Your task to perform on an android device: Open display settings Image 0: 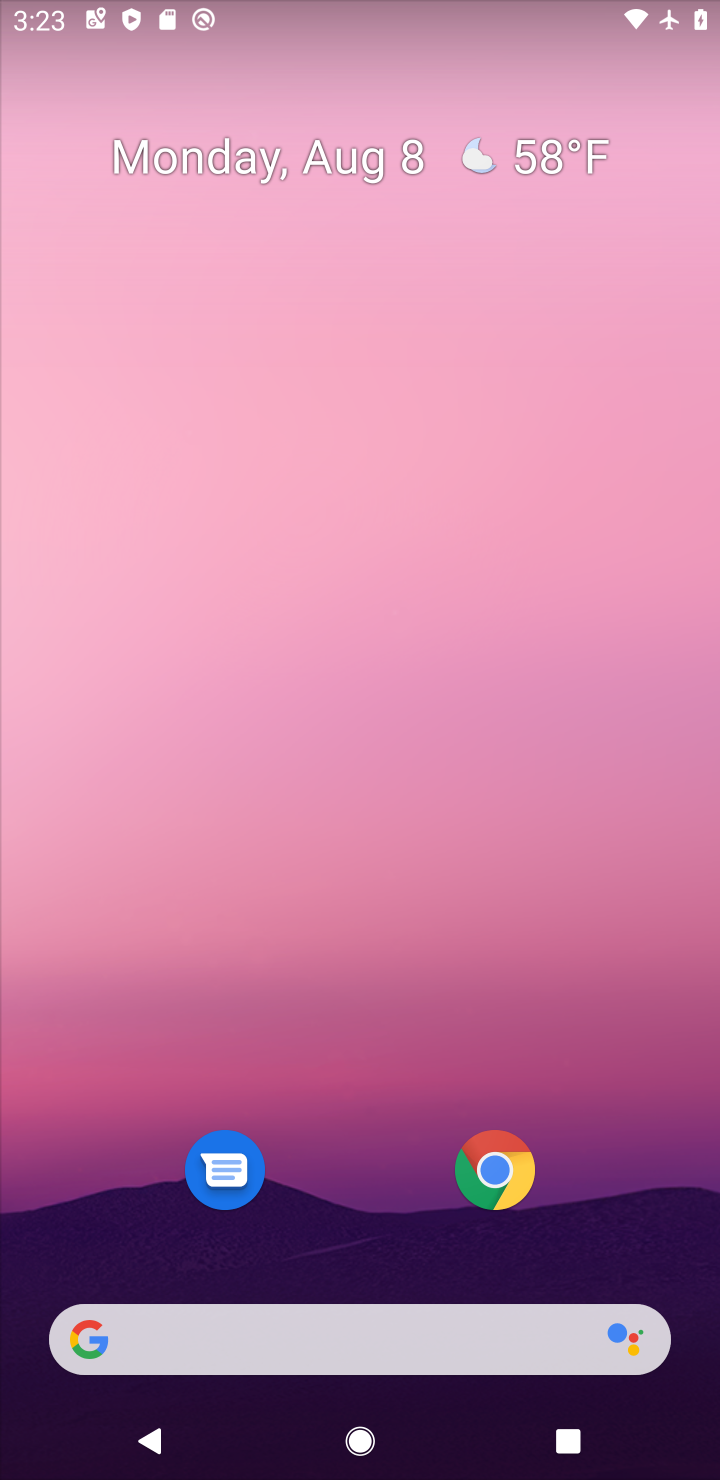
Step 0: drag from (330, 801) to (369, 550)
Your task to perform on an android device: Open display settings Image 1: 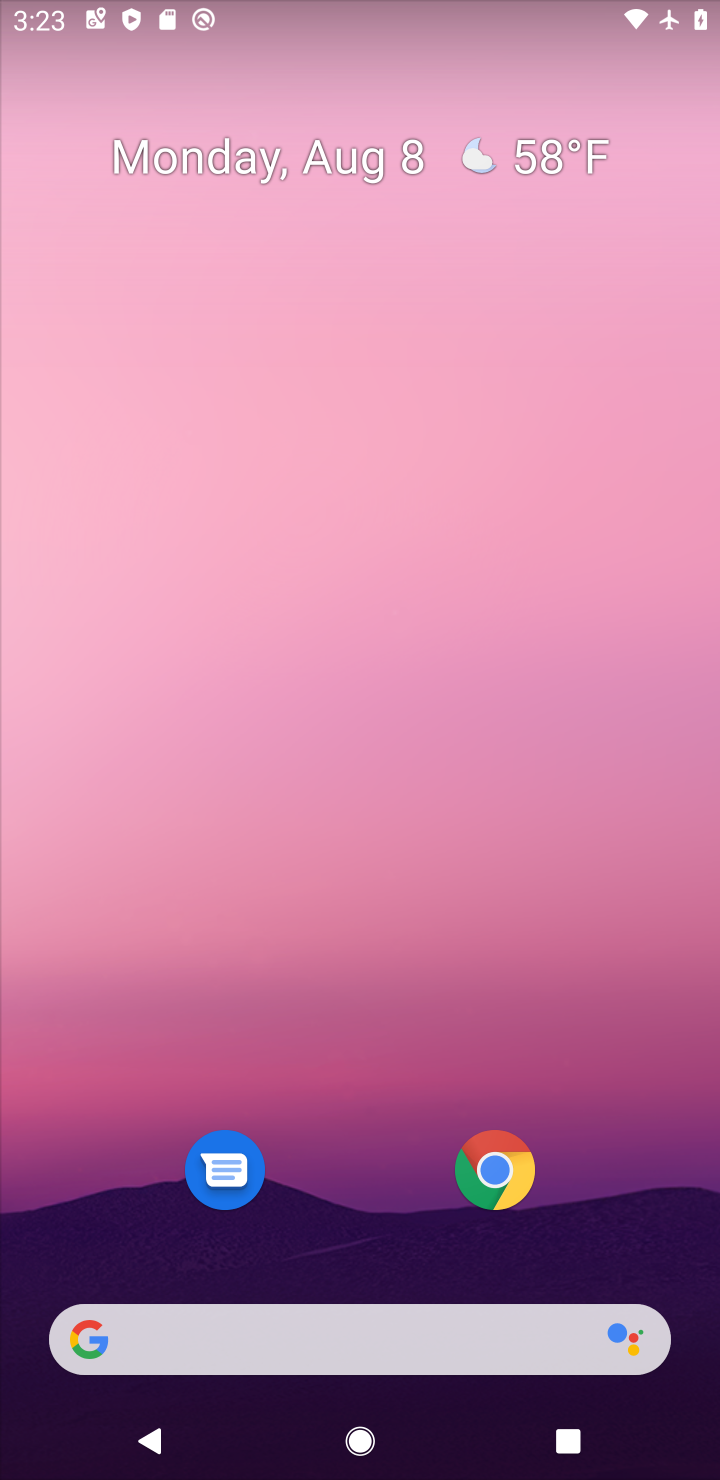
Step 1: drag from (421, 829) to (438, 483)
Your task to perform on an android device: Open display settings Image 2: 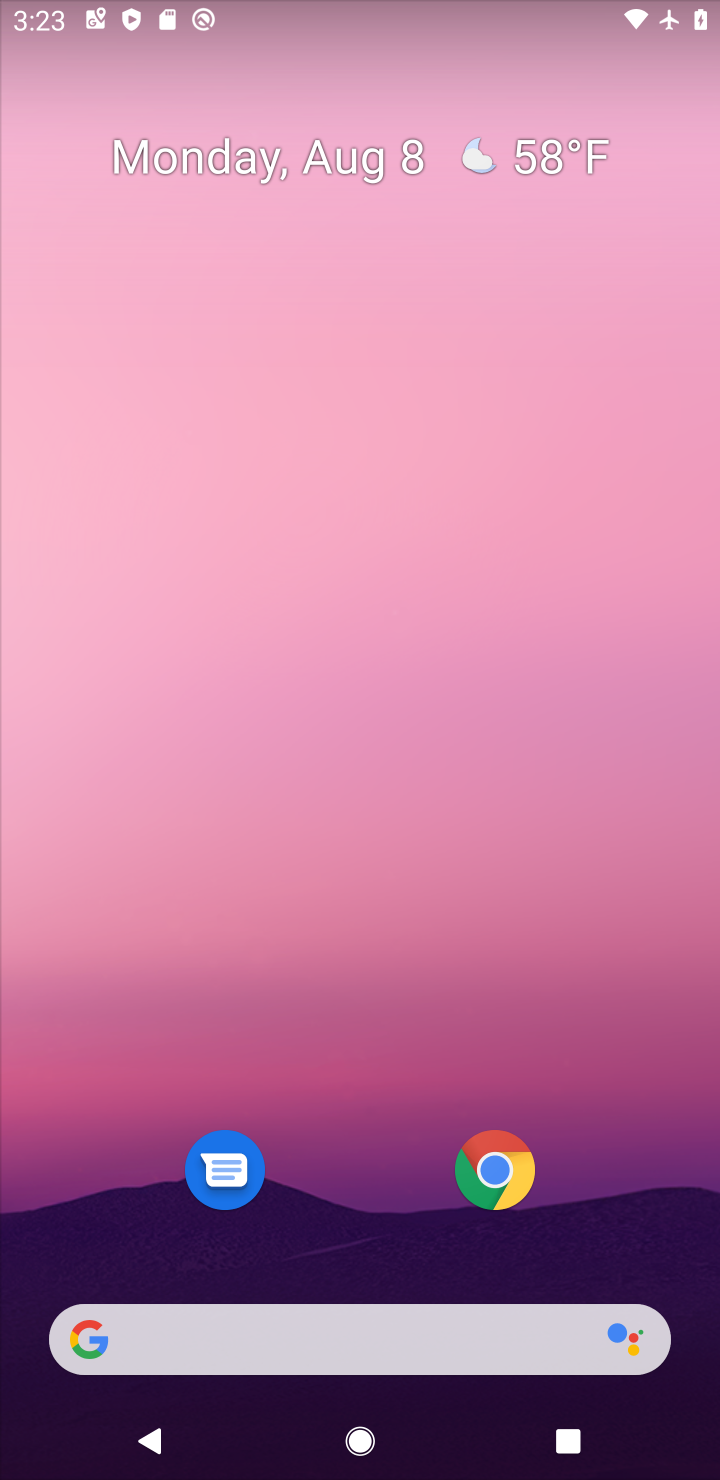
Step 2: drag from (343, 1039) to (343, 362)
Your task to perform on an android device: Open display settings Image 3: 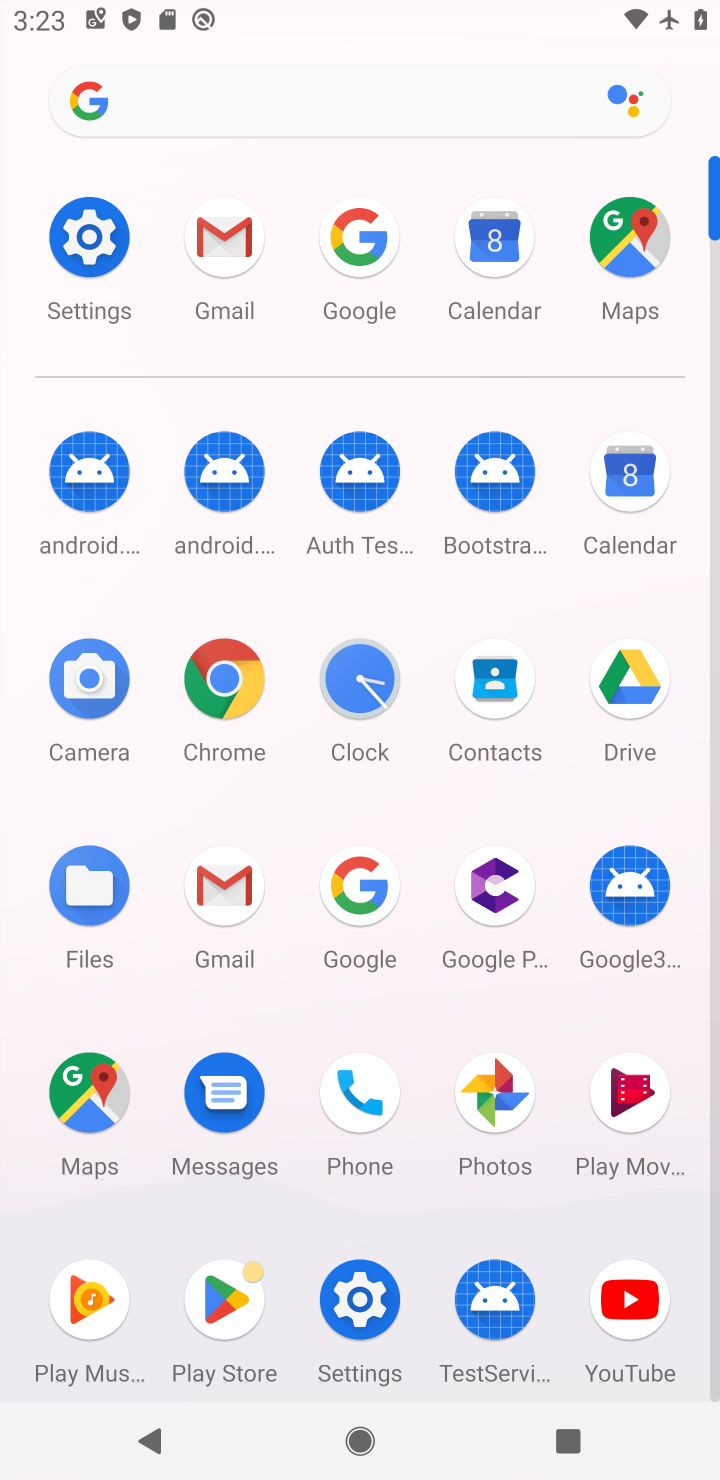
Step 3: click (76, 250)
Your task to perform on an android device: Open display settings Image 4: 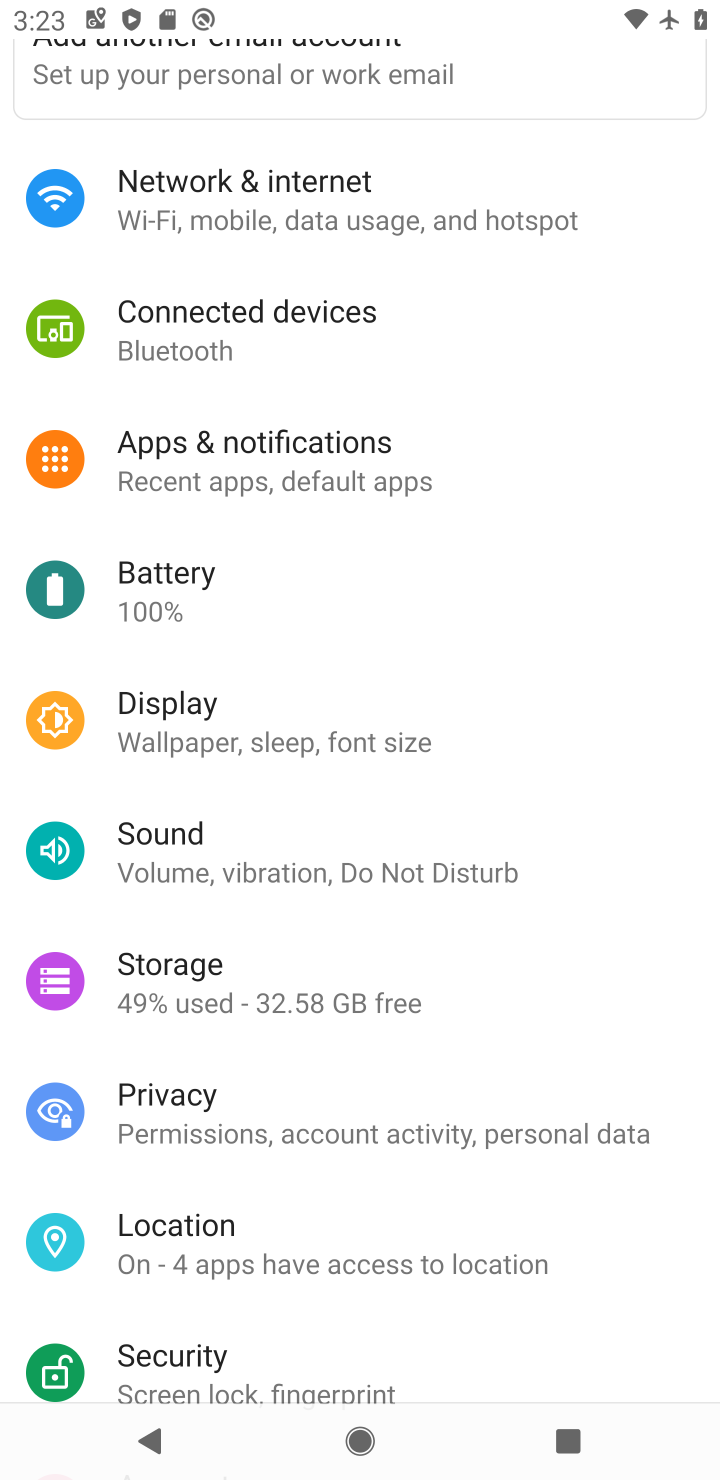
Step 4: click (259, 722)
Your task to perform on an android device: Open display settings Image 5: 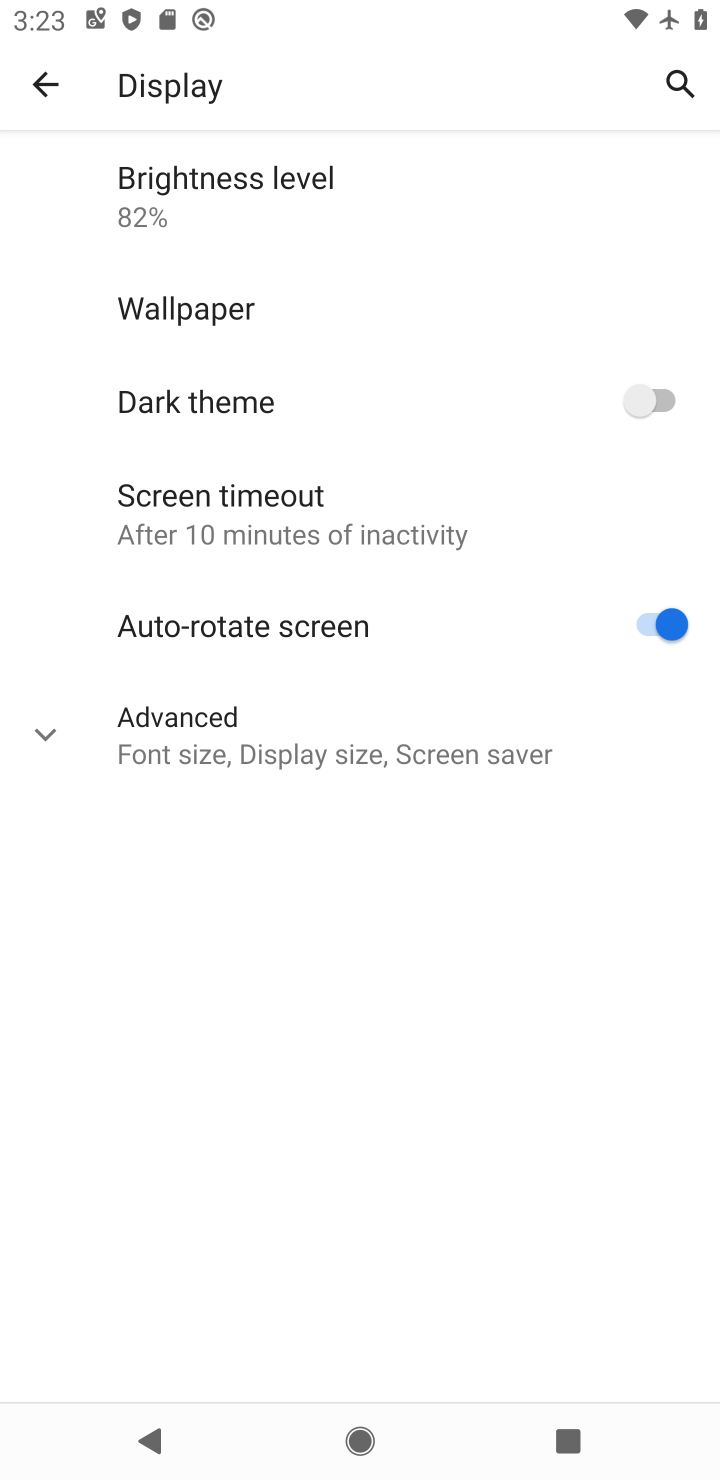
Step 5: task complete